Your task to perform on an android device: Go to location settings Image 0: 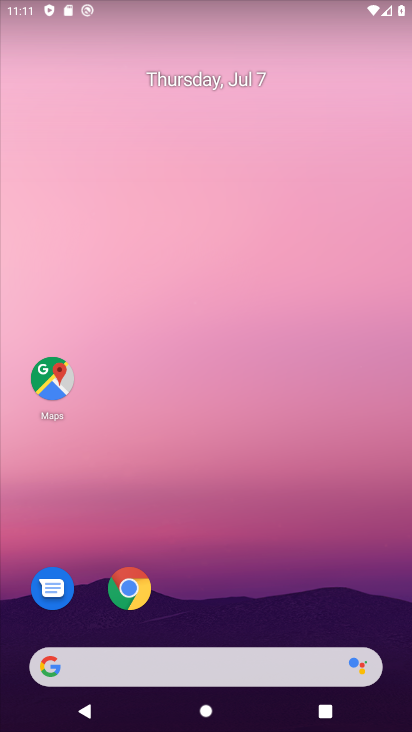
Step 0: drag from (217, 602) to (241, 52)
Your task to perform on an android device: Go to location settings Image 1: 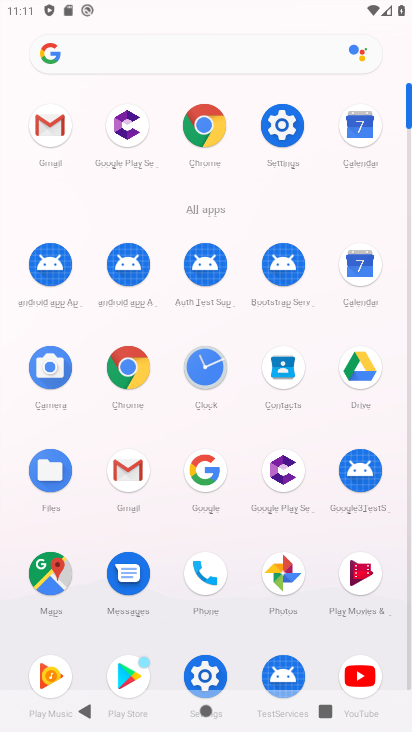
Step 1: click (202, 675)
Your task to perform on an android device: Go to location settings Image 2: 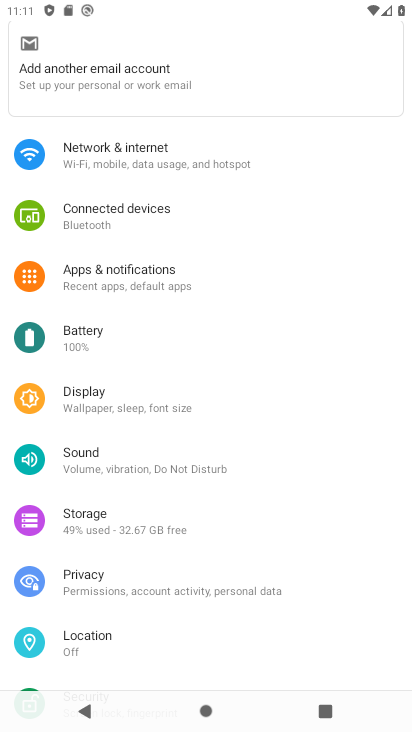
Step 2: click (133, 649)
Your task to perform on an android device: Go to location settings Image 3: 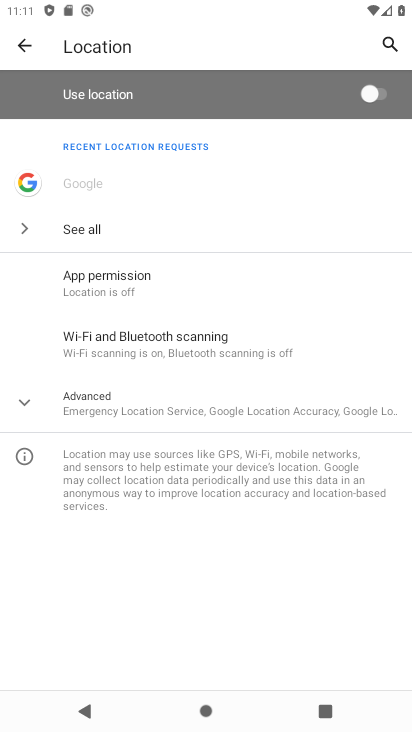
Step 3: task complete